Your task to perform on an android device: Go to network settings Image 0: 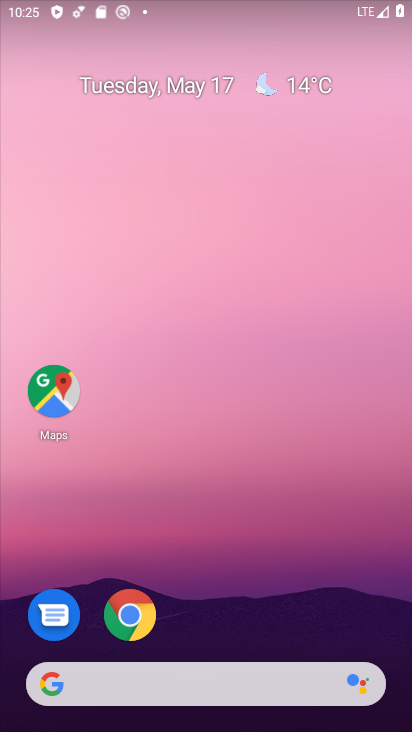
Step 0: drag from (193, 692) to (265, 165)
Your task to perform on an android device: Go to network settings Image 1: 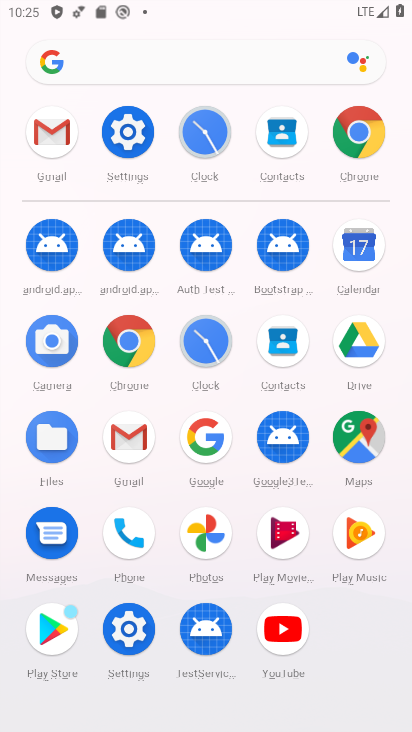
Step 1: click (126, 136)
Your task to perform on an android device: Go to network settings Image 2: 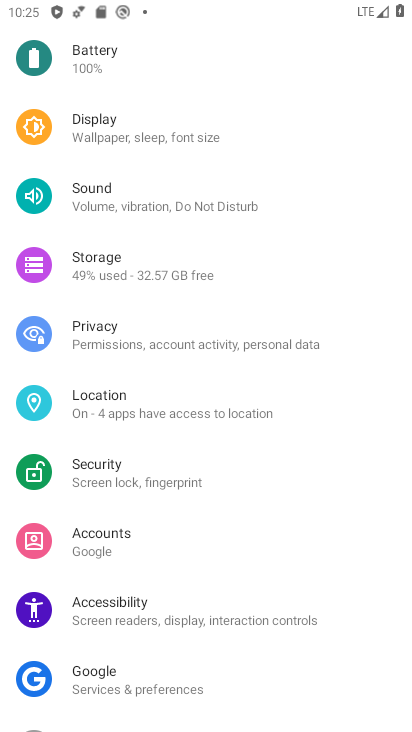
Step 2: drag from (280, 76) to (286, 531)
Your task to perform on an android device: Go to network settings Image 3: 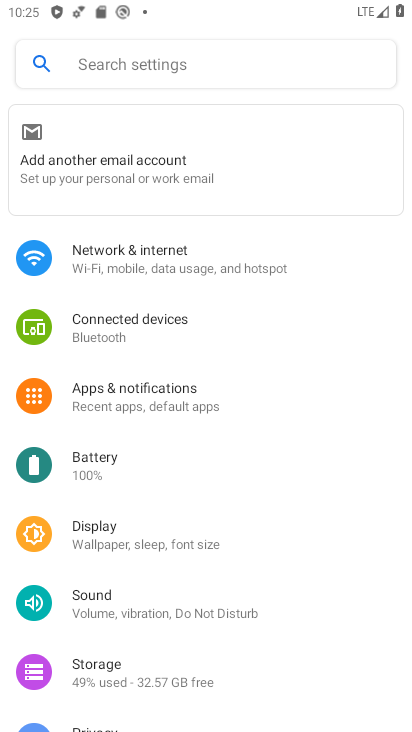
Step 3: click (174, 253)
Your task to perform on an android device: Go to network settings Image 4: 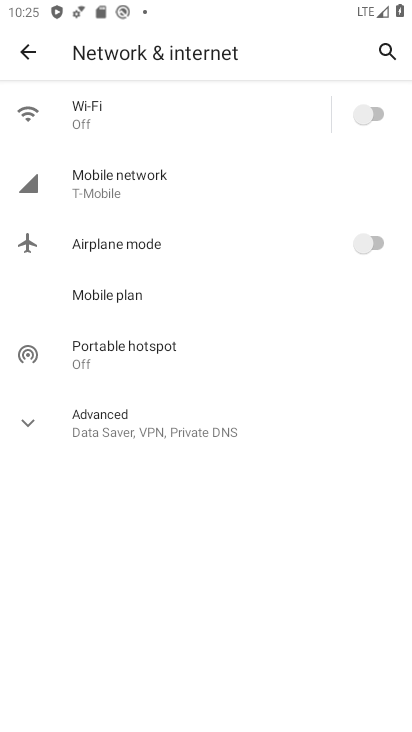
Step 4: task complete